Your task to perform on an android device: find photos in the google photos app Image 0: 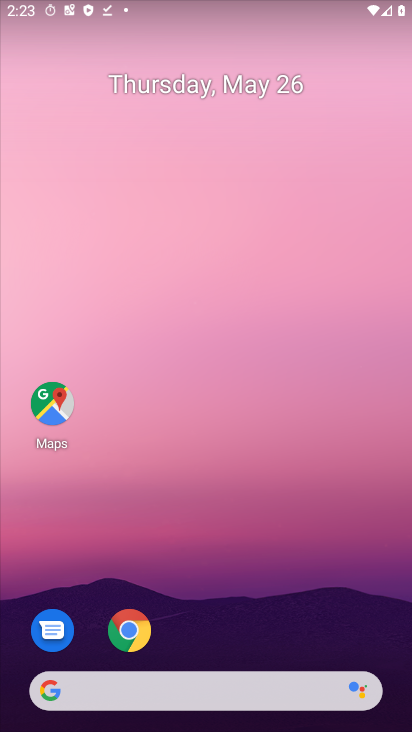
Step 0: drag from (261, 606) to (259, 198)
Your task to perform on an android device: find photos in the google photos app Image 1: 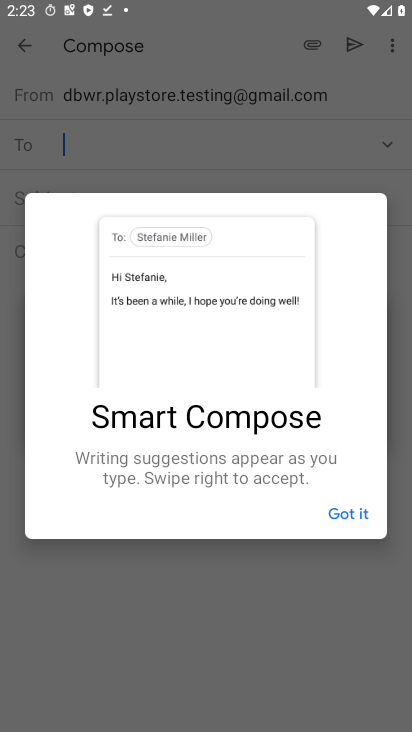
Step 1: press home button
Your task to perform on an android device: find photos in the google photos app Image 2: 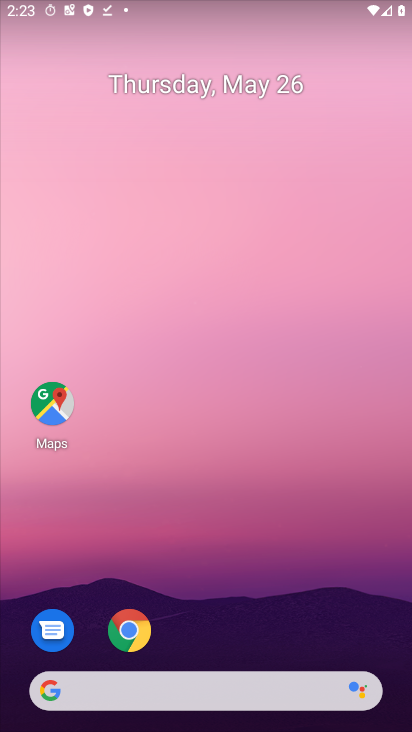
Step 2: drag from (251, 606) to (246, 180)
Your task to perform on an android device: find photos in the google photos app Image 3: 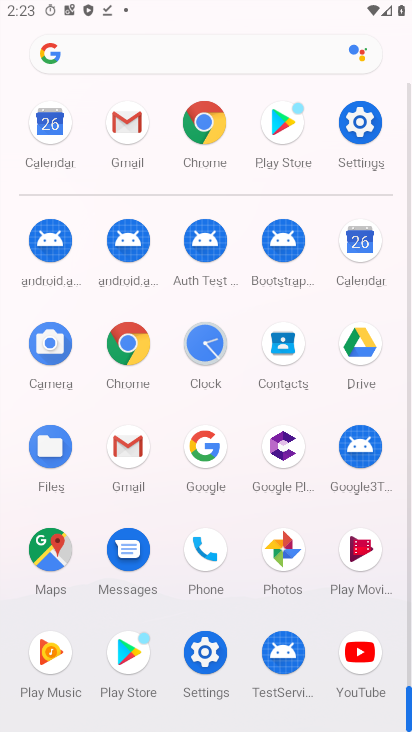
Step 3: click (268, 554)
Your task to perform on an android device: find photos in the google photos app Image 4: 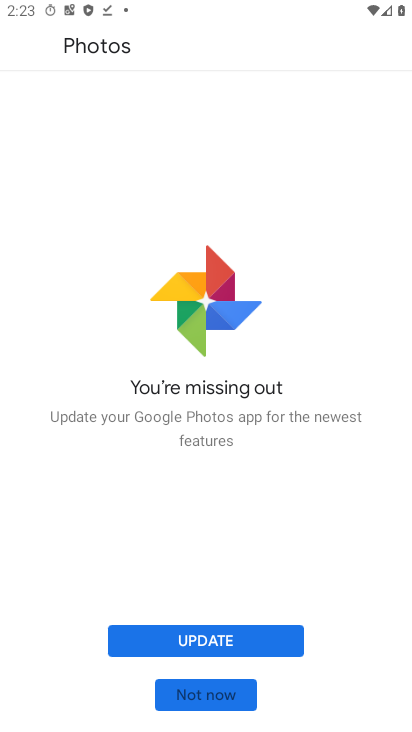
Step 4: click (136, 636)
Your task to perform on an android device: find photos in the google photos app Image 5: 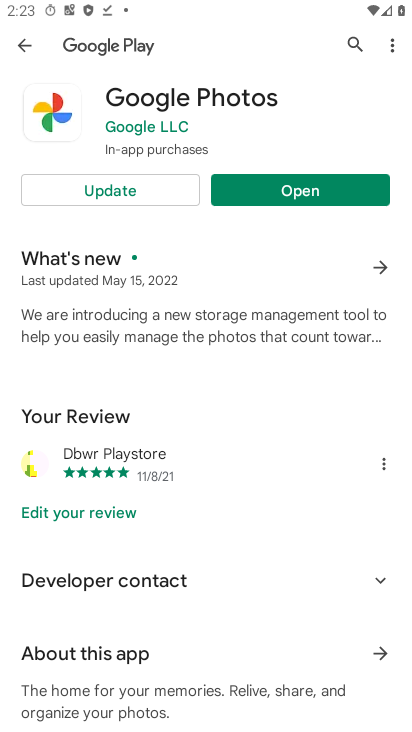
Step 5: click (83, 192)
Your task to perform on an android device: find photos in the google photos app Image 6: 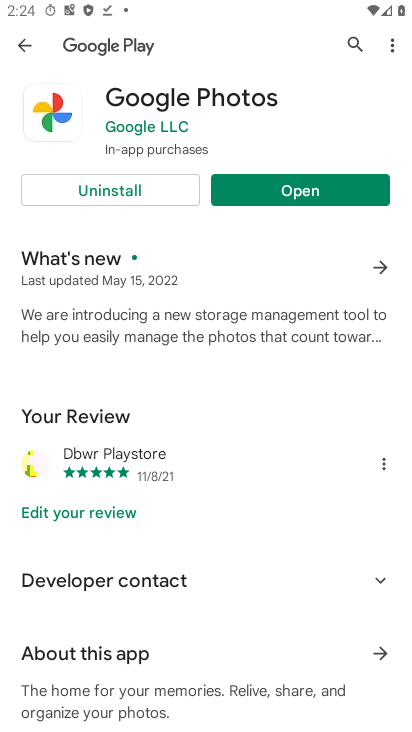
Step 6: click (361, 190)
Your task to perform on an android device: find photos in the google photos app Image 7: 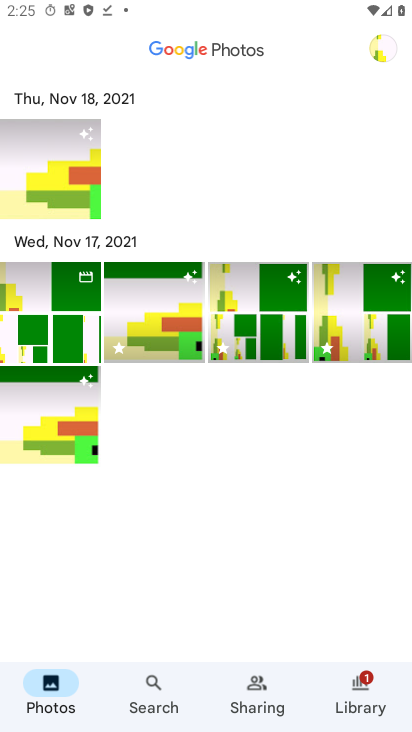
Step 7: task complete